Your task to perform on an android device: open a new tab in the chrome app Image 0: 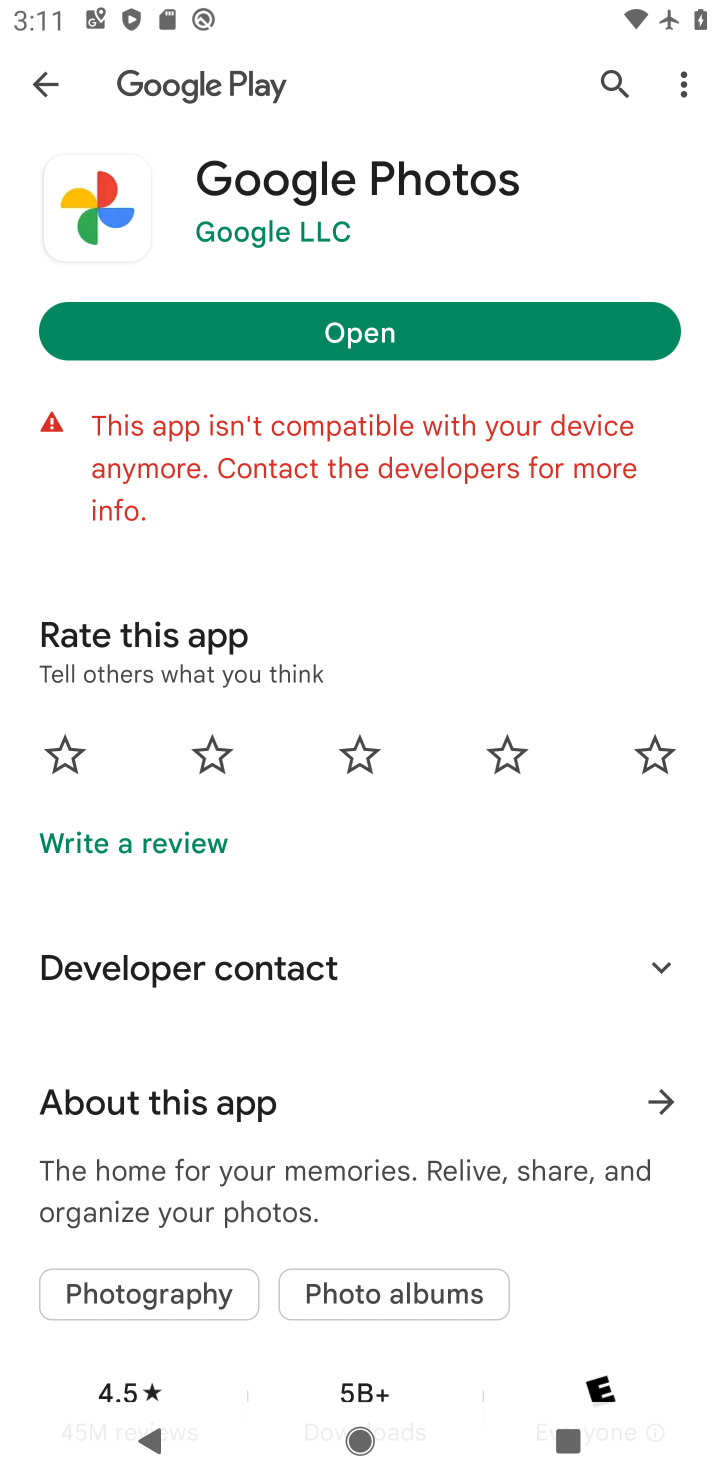
Step 0: press home button
Your task to perform on an android device: open a new tab in the chrome app Image 1: 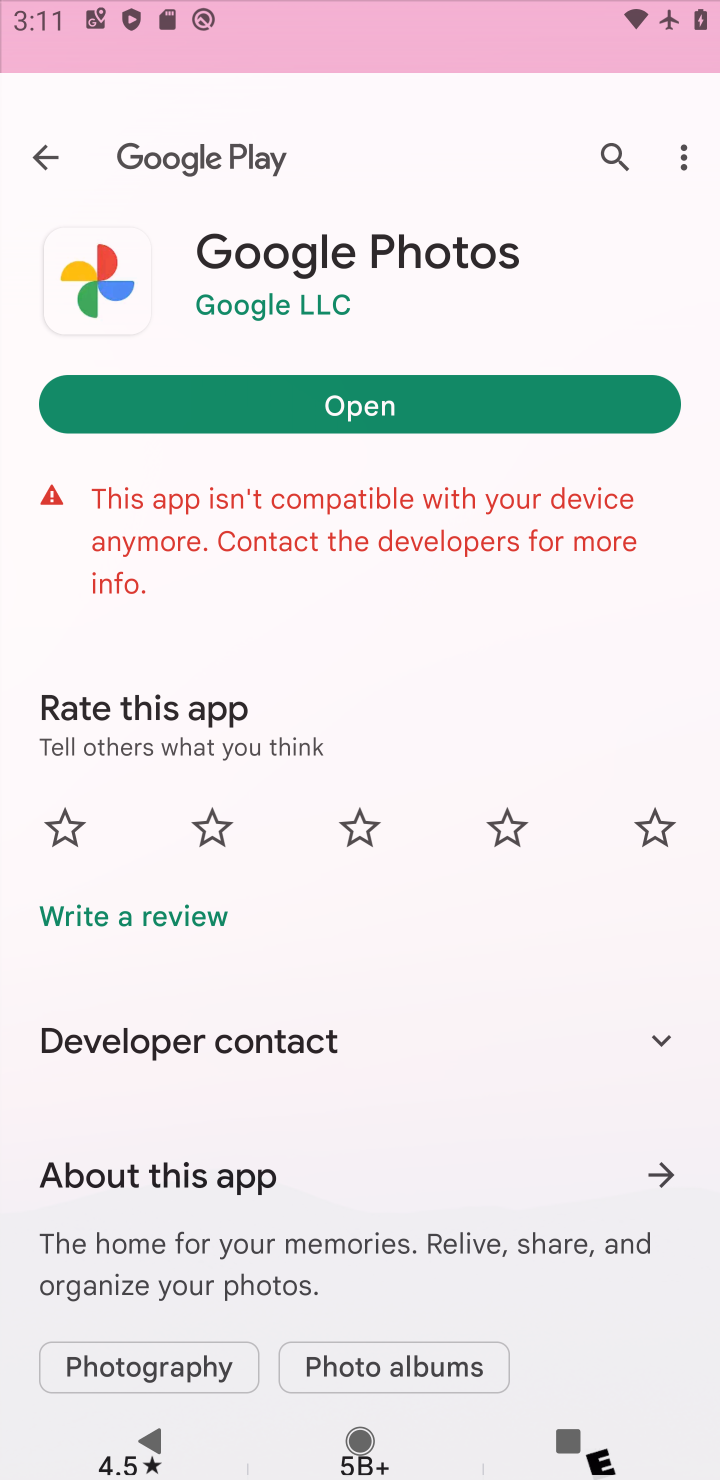
Step 1: press home button
Your task to perform on an android device: open a new tab in the chrome app Image 2: 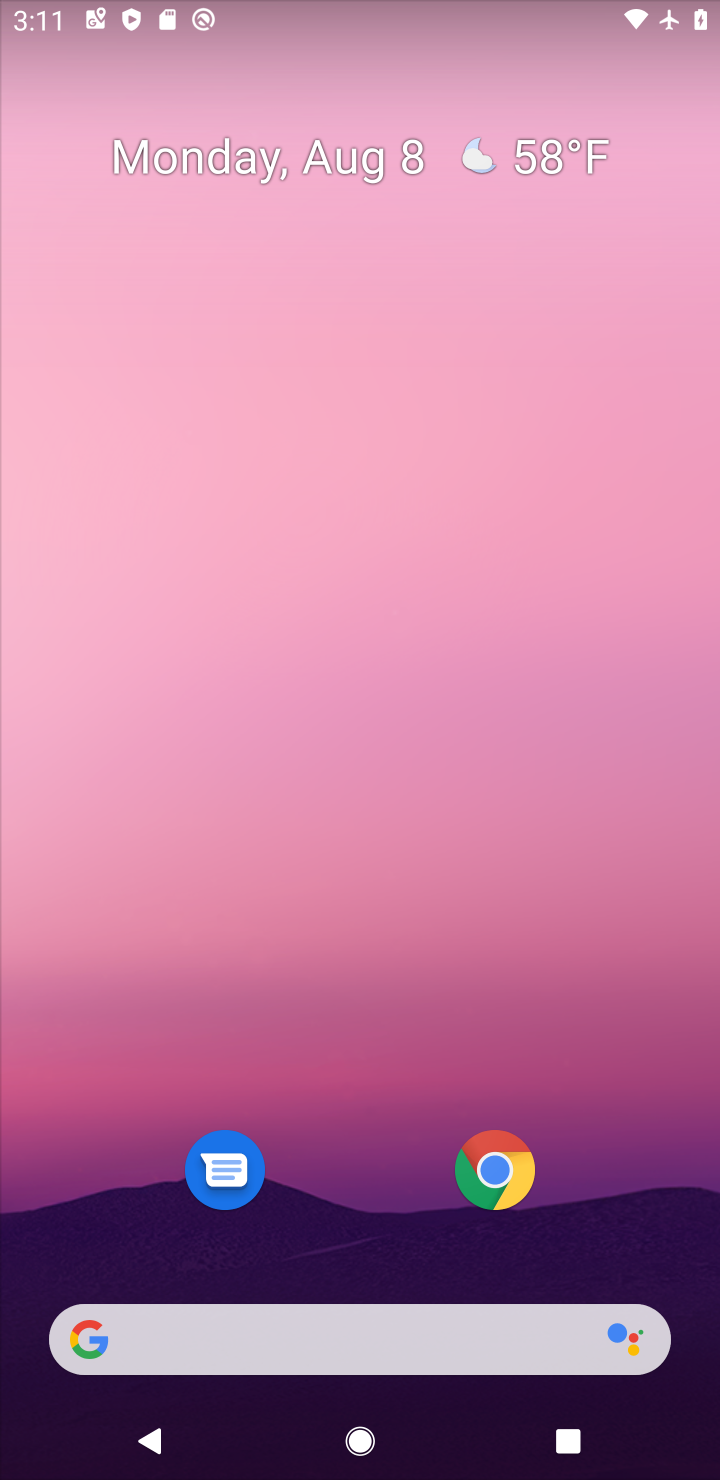
Step 2: click (470, 1182)
Your task to perform on an android device: open a new tab in the chrome app Image 3: 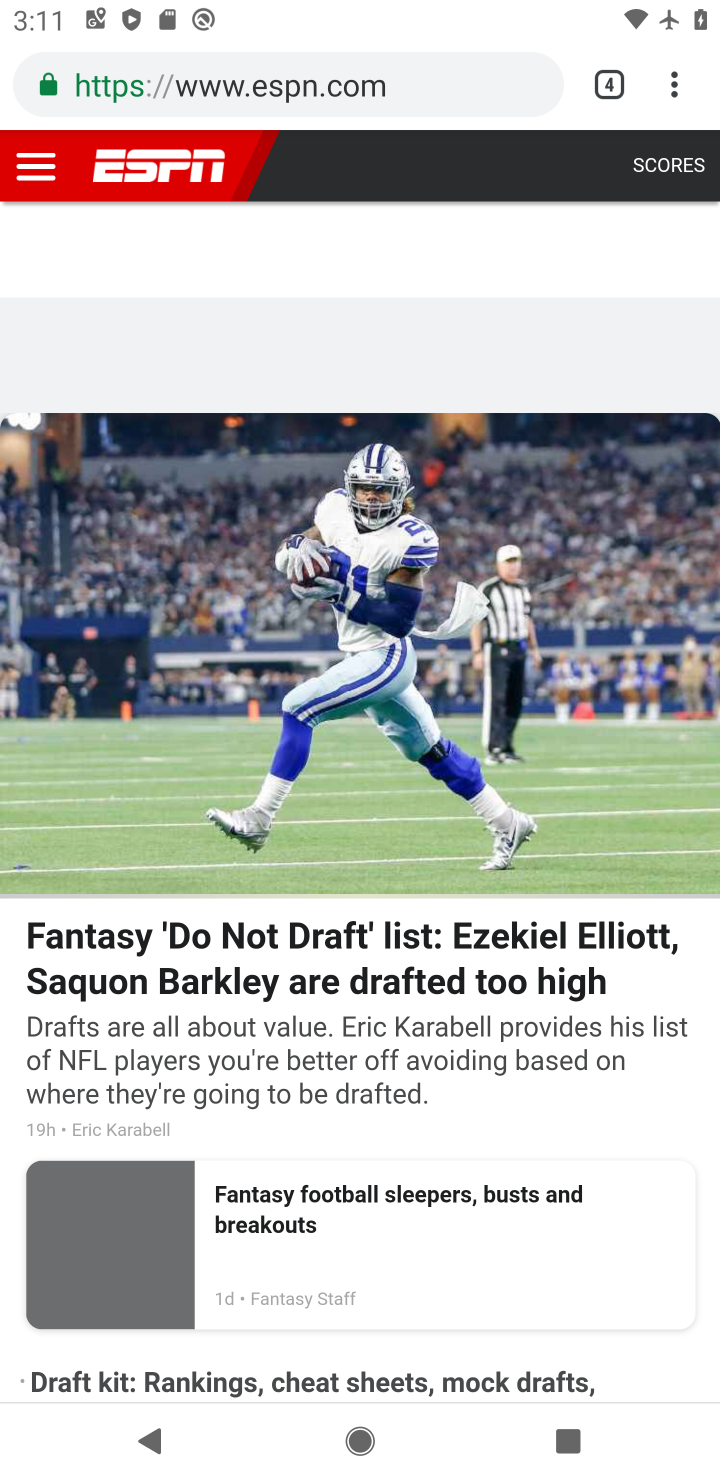
Step 3: click (614, 85)
Your task to perform on an android device: open a new tab in the chrome app Image 4: 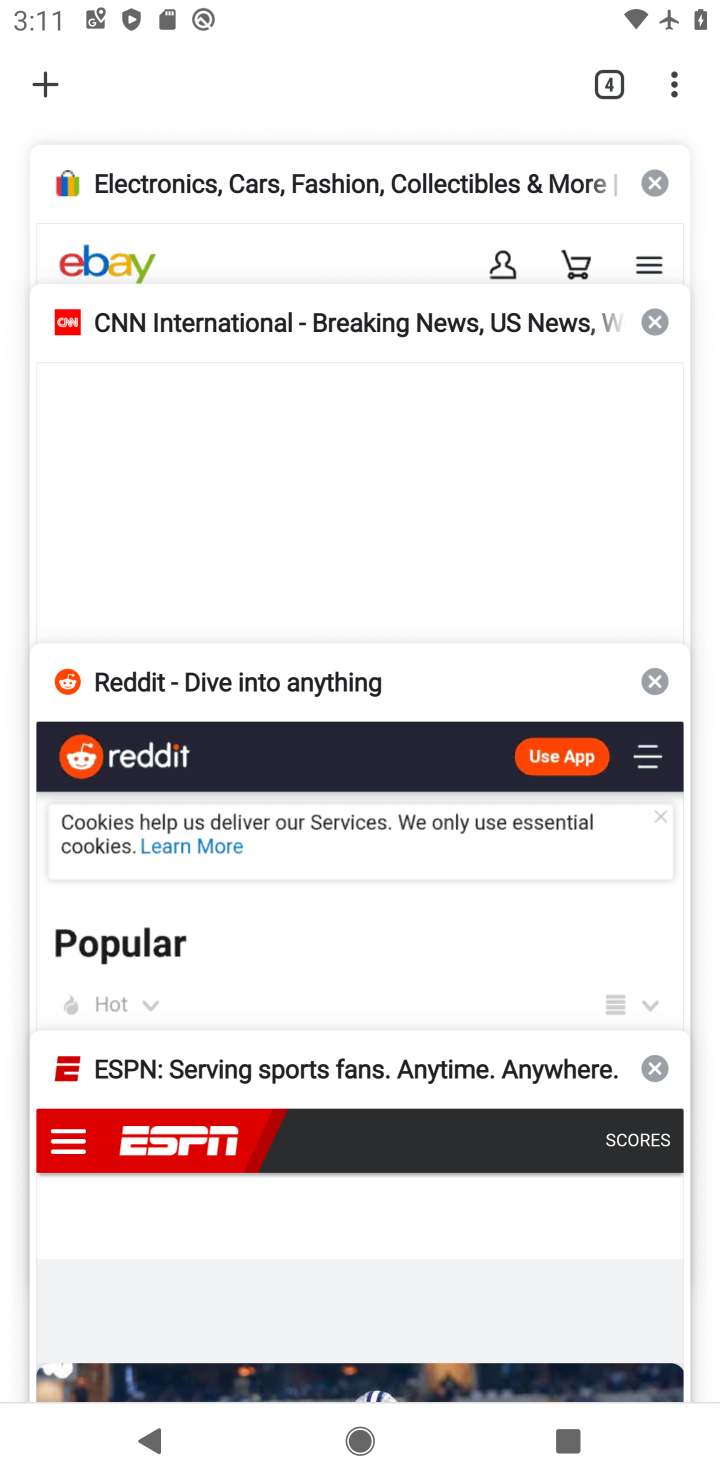
Step 4: click (62, 71)
Your task to perform on an android device: open a new tab in the chrome app Image 5: 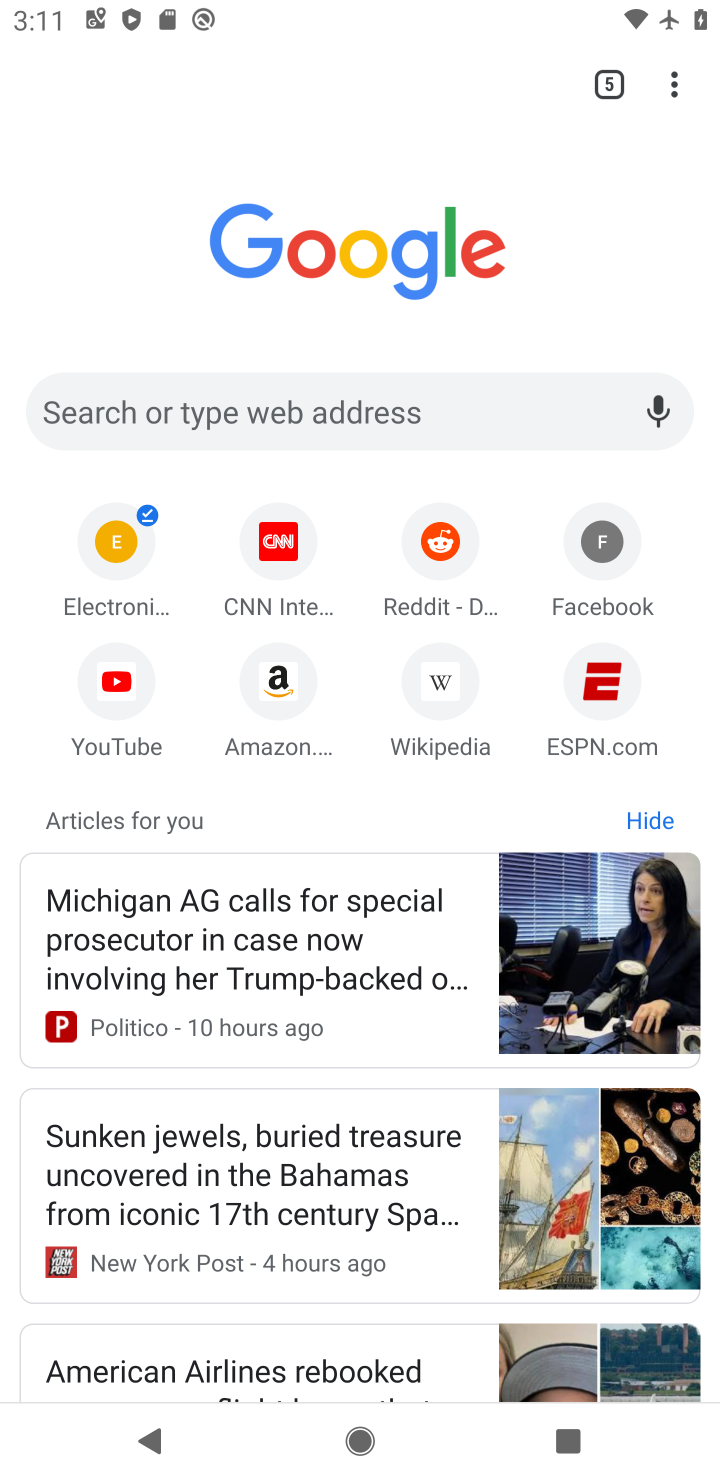
Step 5: task complete